Your task to perform on an android device: Open Google Chrome Image 0: 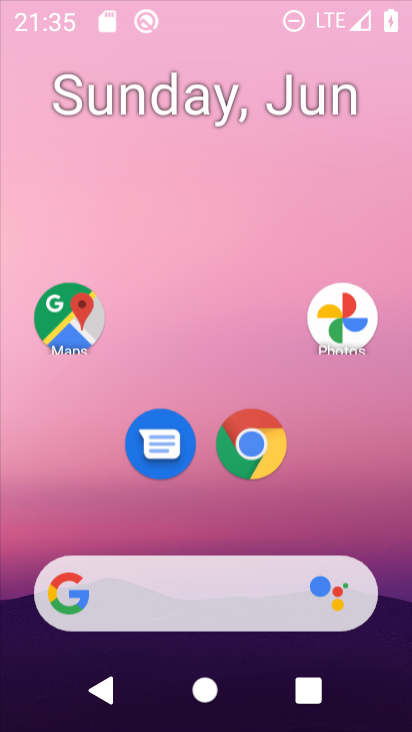
Step 0: press home button
Your task to perform on an android device: Open Google Chrome Image 1: 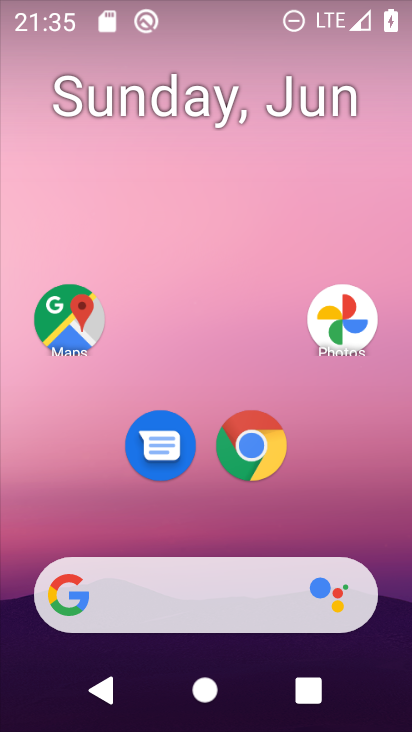
Step 1: click (262, 445)
Your task to perform on an android device: Open Google Chrome Image 2: 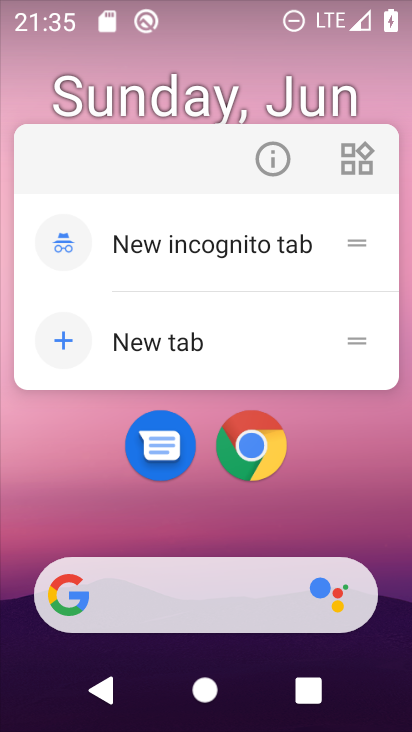
Step 2: click (311, 463)
Your task to perform on an android device: Open Google Chrome Image 3: 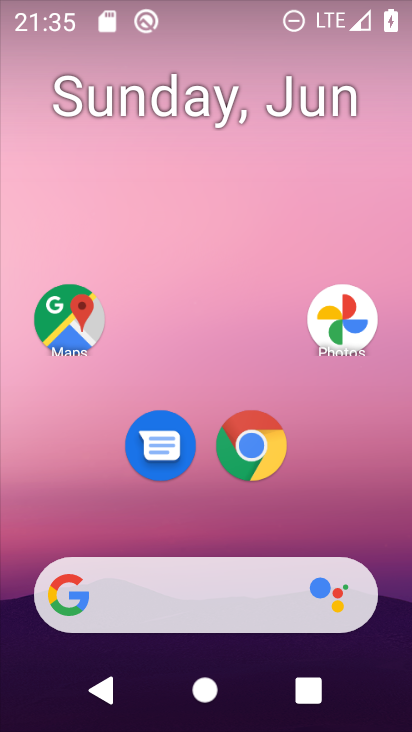
Step 3: click (258, 453)
Your task to perform on an android device: Open Google Chrome Image 4: 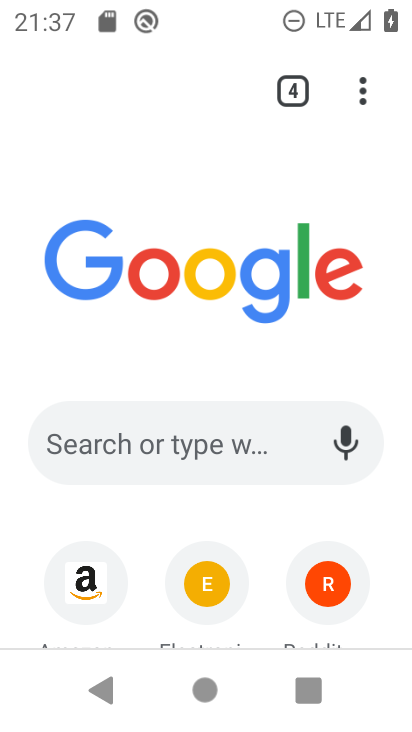
Step 4: task complete